Your task to perform on an android device: Set the phone to "Do not disturb". Image 0: 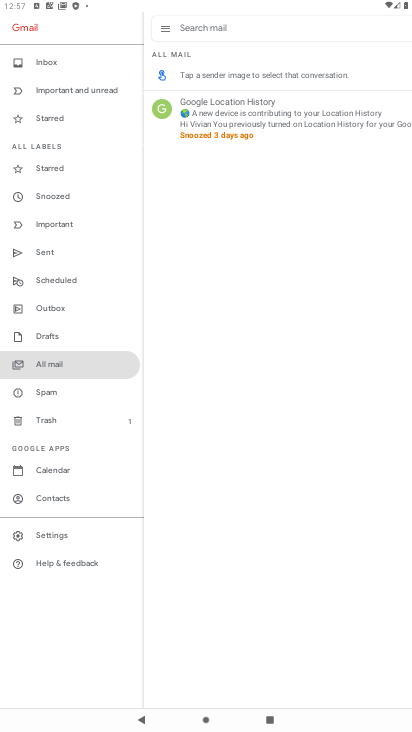
Step 0: press home button
Your task to perform on an android device: Set the phone to "Do not disturb". Image 1: 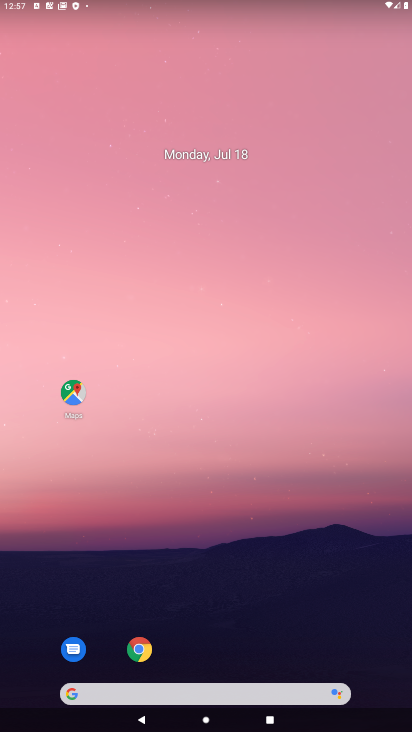
Step 1: drag from (385, 664) to (297, 130)
Your task to perform on an android device: Set the phone to "Do not disturb". Image 2: 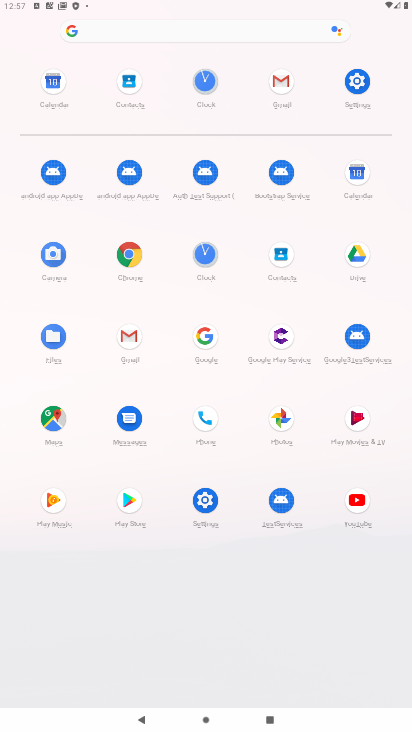
Step 2: click (203, 497)
Your task to perform on an android device: Set the phone to "Do not disturb". Image 3: 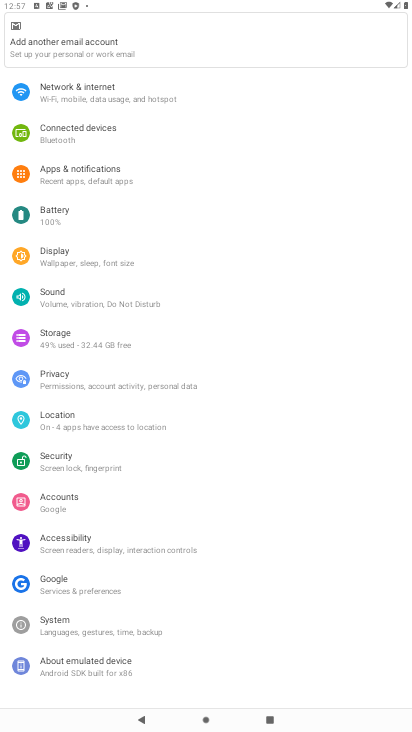
Step 3: click (55, 294)
Your task to perform on an android device: Set the phone to "Do not disturb". Image 4: 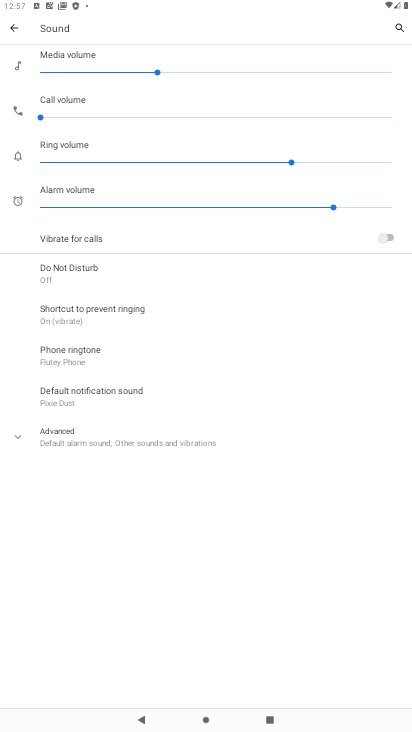
Step 4: click (67, 264)
Your task to perform on an android device: Set the phone to "Do not disturb". Image 5: 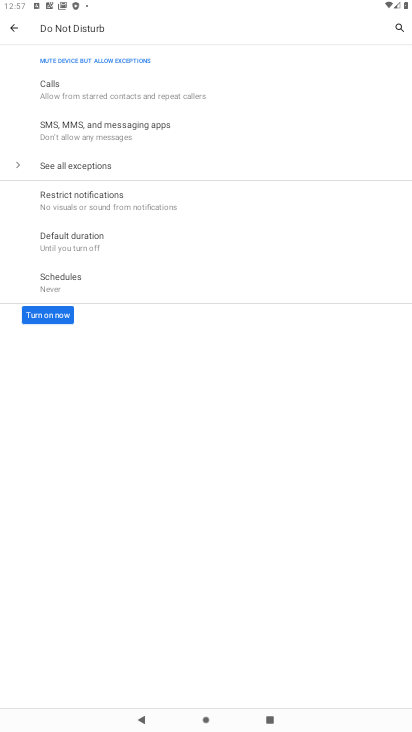
Step 5: click (40, 315)
Your task to perform on an android device: Set the phone to "Do not disturb". Image 6: 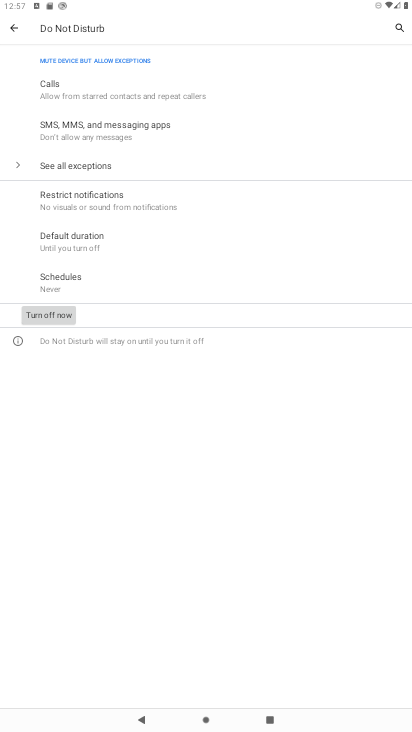
Step 6: task complete